Your task to perform on an android device: Show the shopping cart on ebay. Image 0: 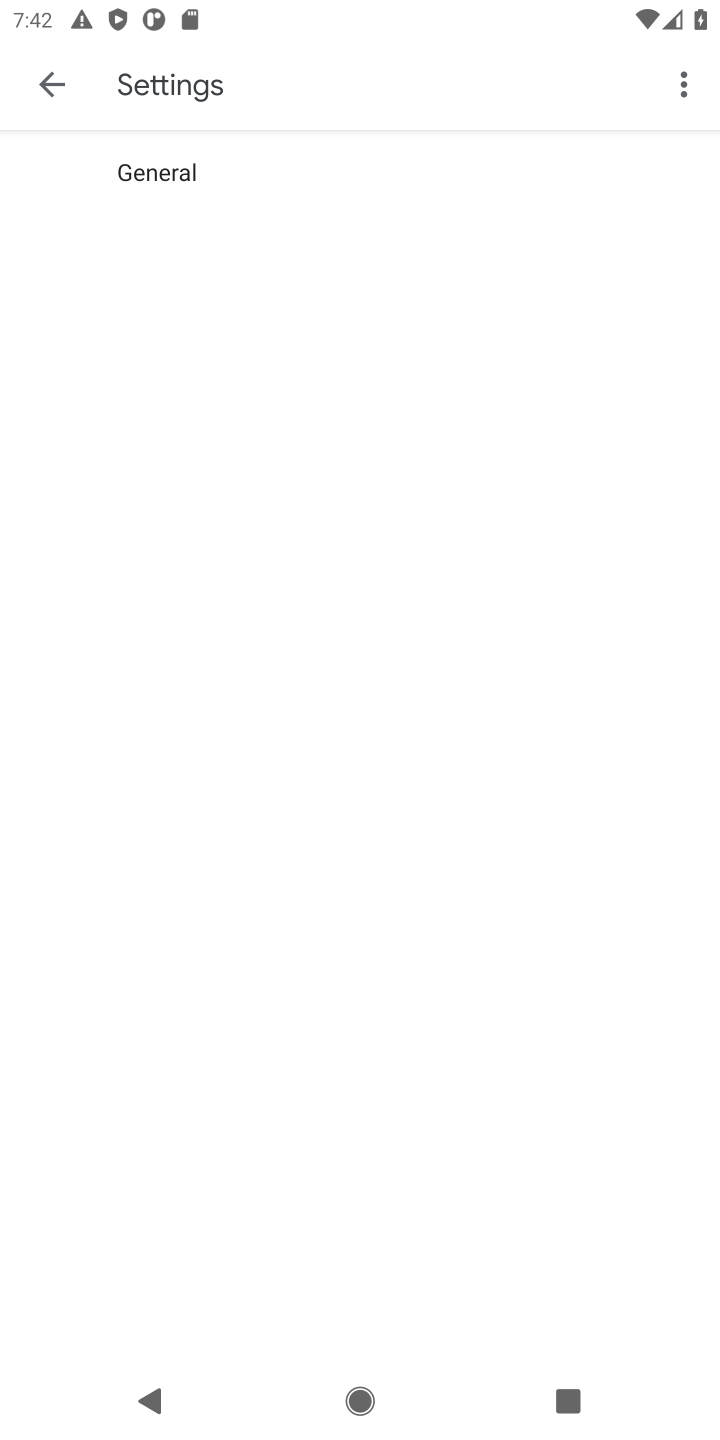
Step 0: press home button
Your task to perform on an android device: Show the shopping cart on ebay. Image 1: 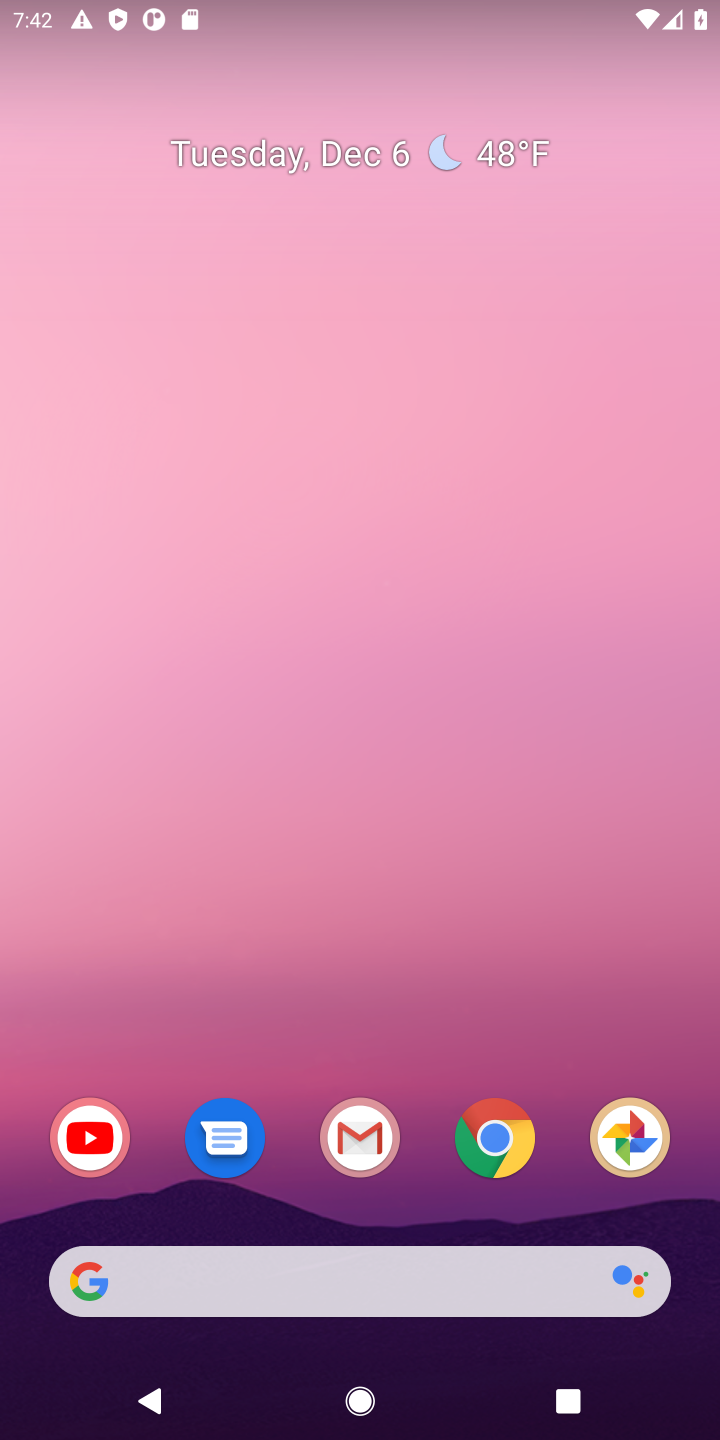
Step 1: click (499, 1133)
Your task to perform on an android device: Show the shopping cart on ebay. Image 2: 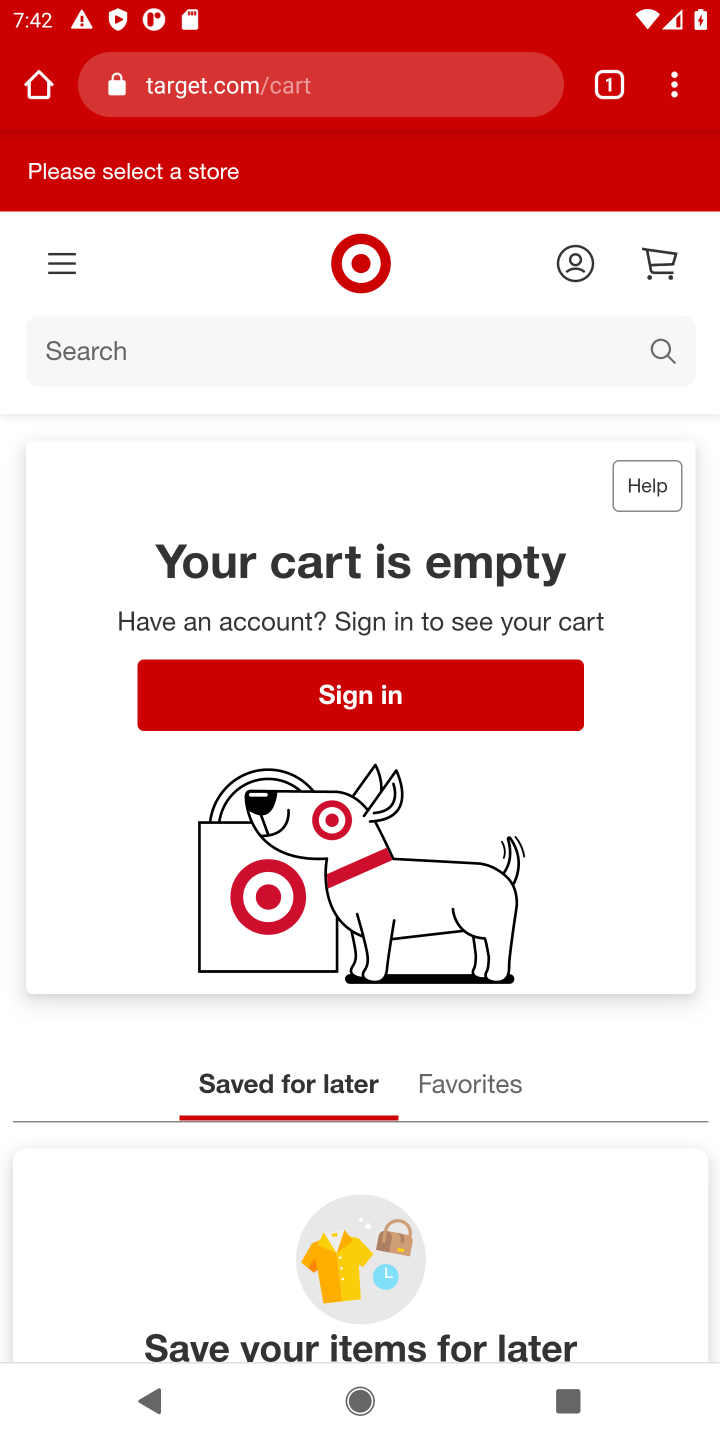
Step 2: click (283, 99)
Your task to perform on an android device: Show the shopping cart on ebay. Image 3: 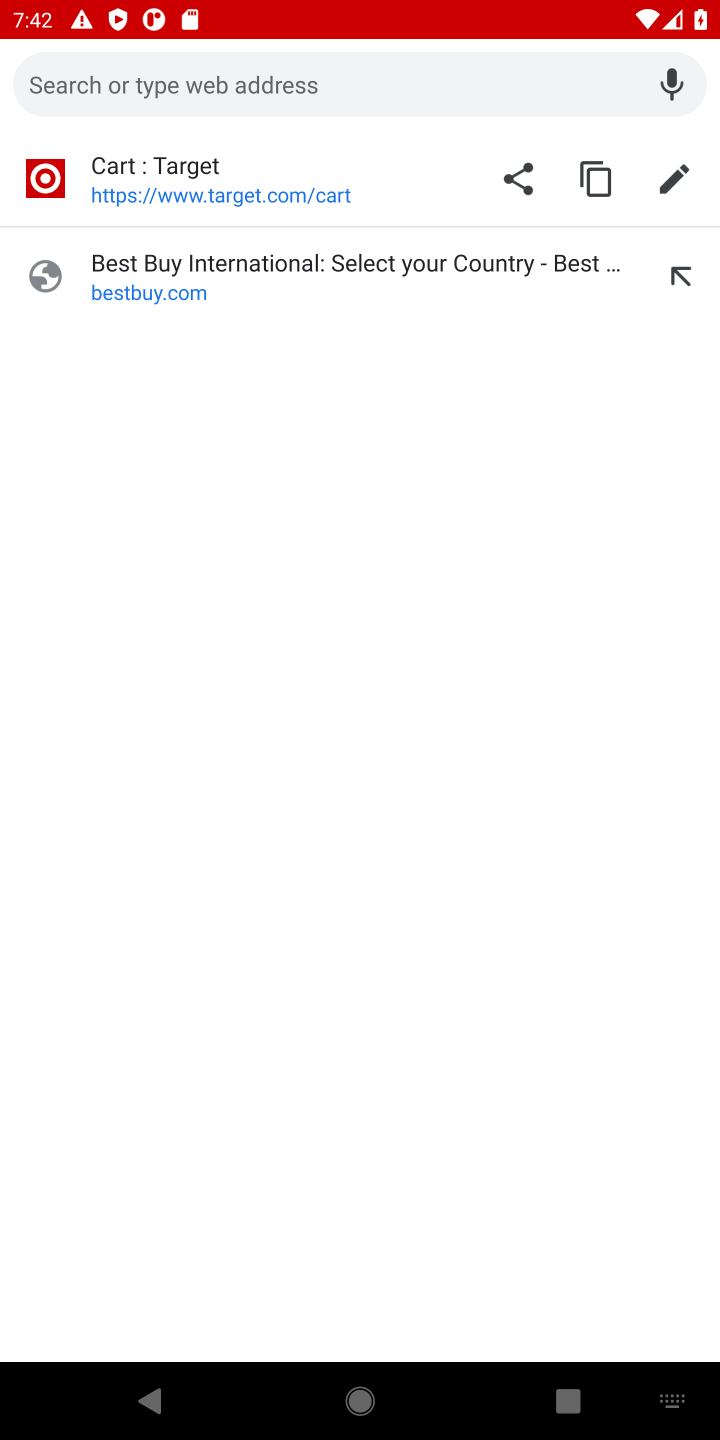
Step 3: type "ebay.com"
Your task to perform on an android device: Show the shopping cart on ebay. Image 4: 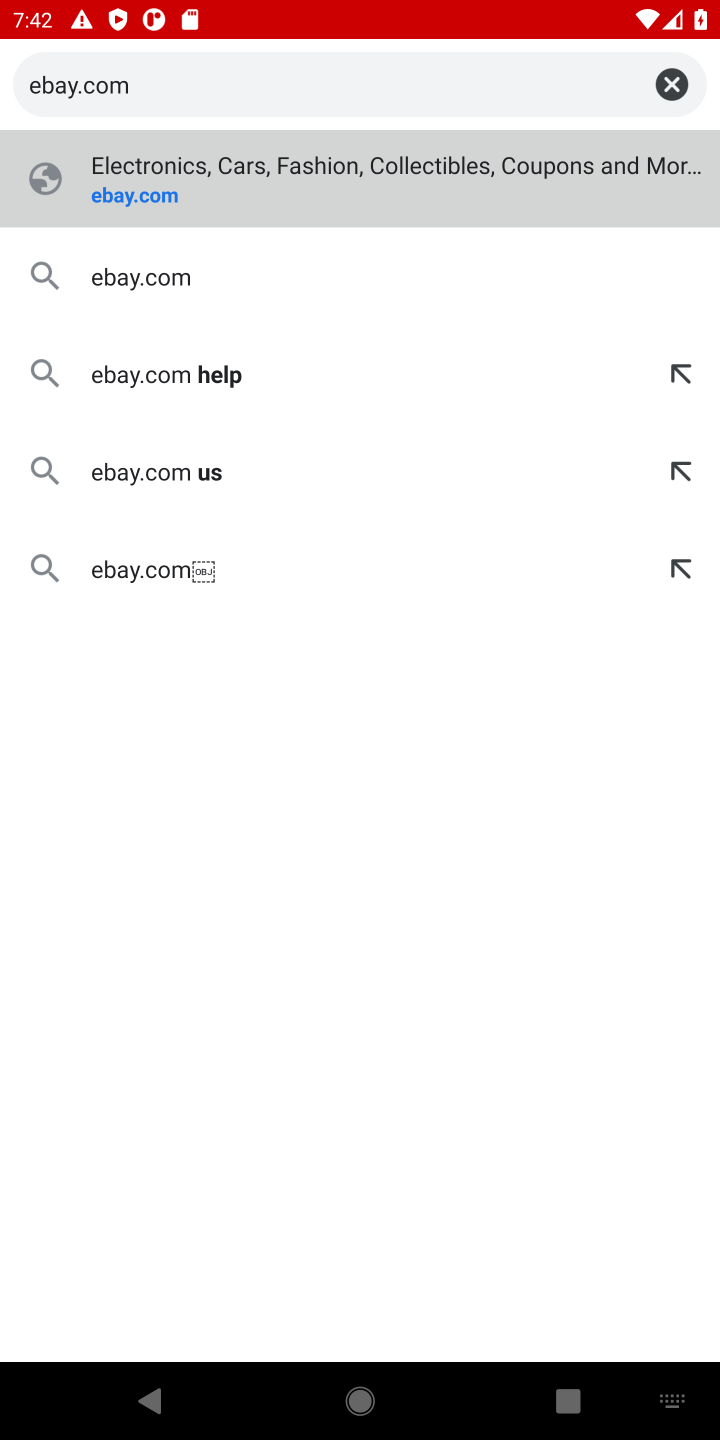
Step 4: click (146, 209)
Your task to perform on an android device: Show the shopping cart on ebay. Image 5: 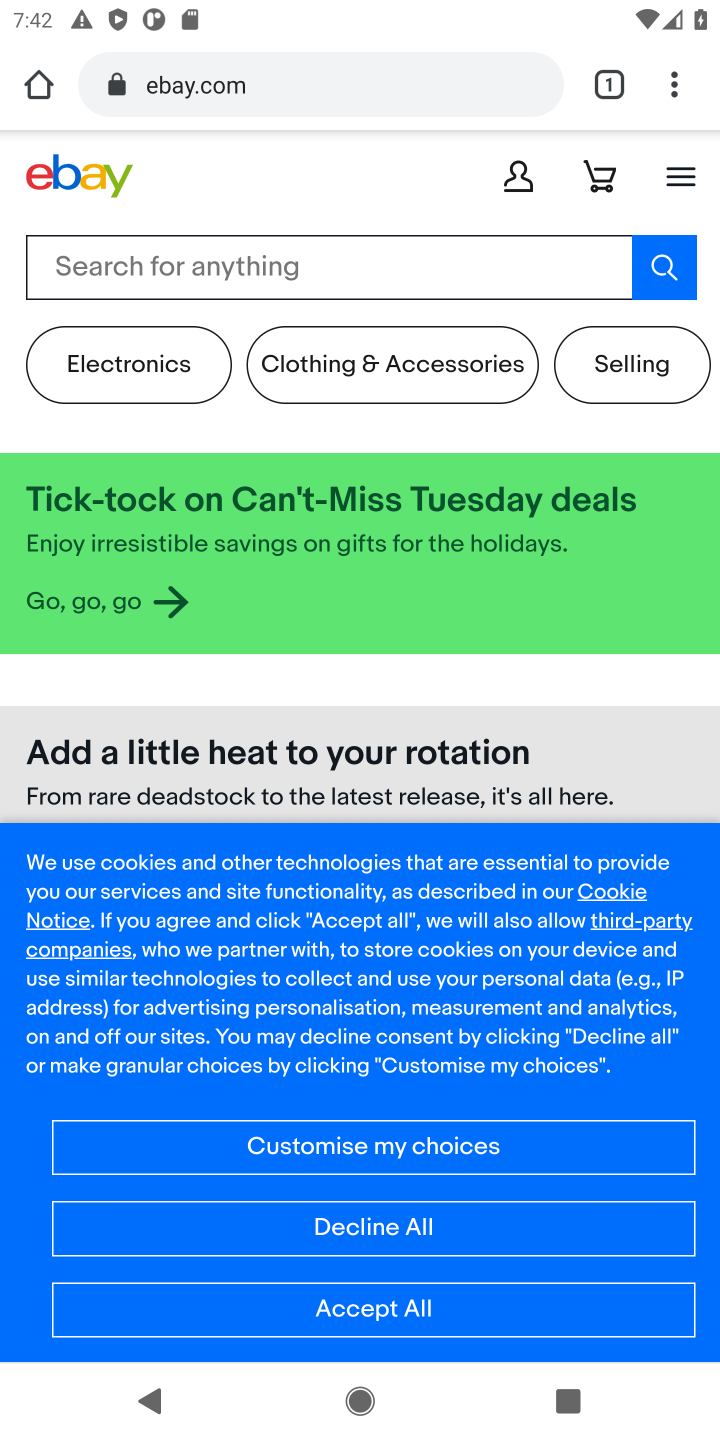
Step 5: click (610, 176)
Your task to perform on an android device: Show the shopping cart on ebay. Image 6: 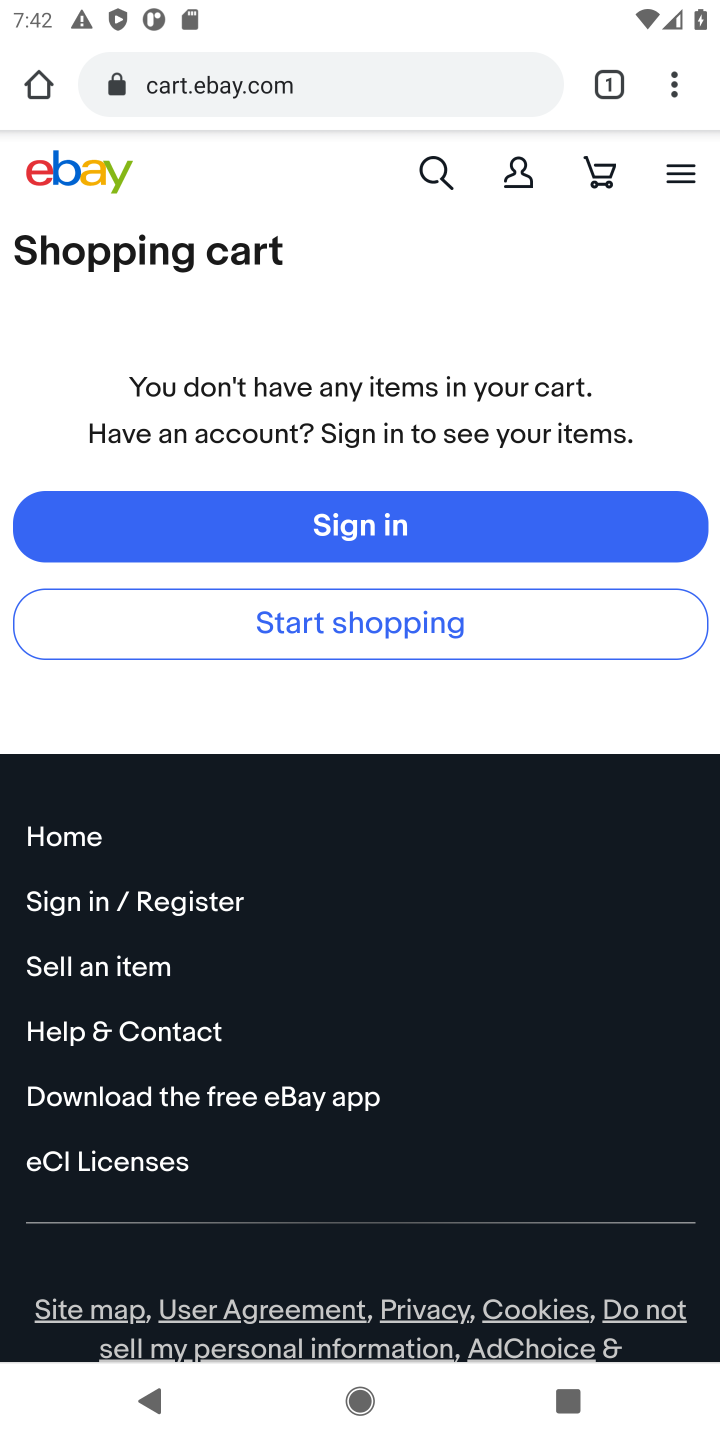
Step 6: task complete